Your task to perform on an android device: move a message to another label in the gmail app Image 0: 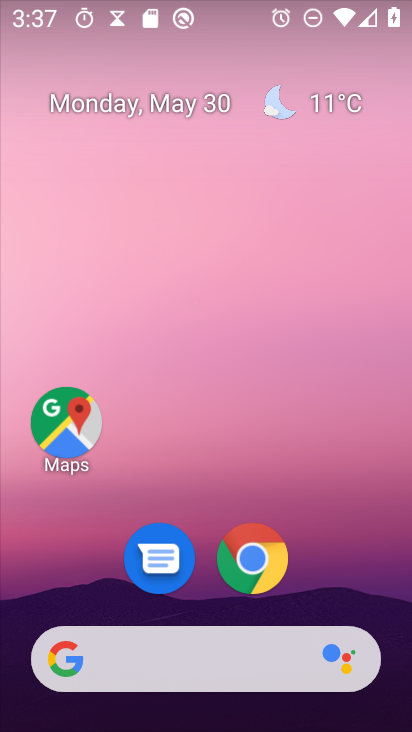
Step 0: drag from (185, 554) to (235, 44)
Your task to perform on an android device: move a message to another label in the gmail app Image 1: 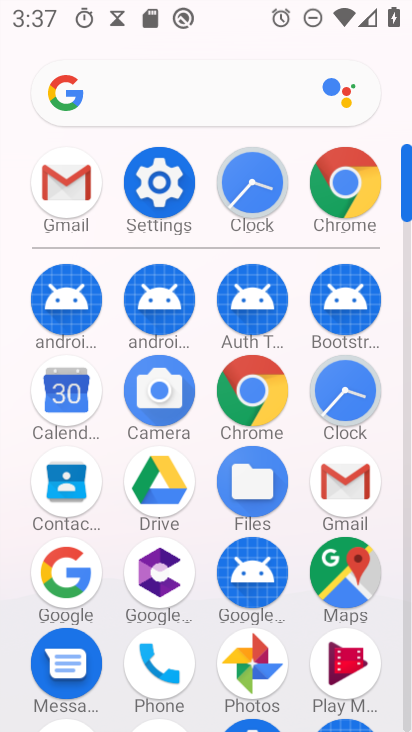
Step 1: click (76, 176)
Your task to perform on an android device: move a message to another label in the gmail app Image 2: 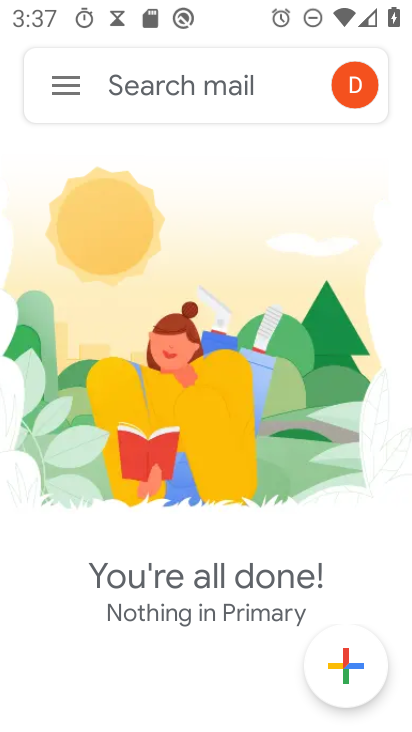
Step 2: click (55, 66)
Your task to perform on an android device: move a message to another label in the gmail app Image 3: 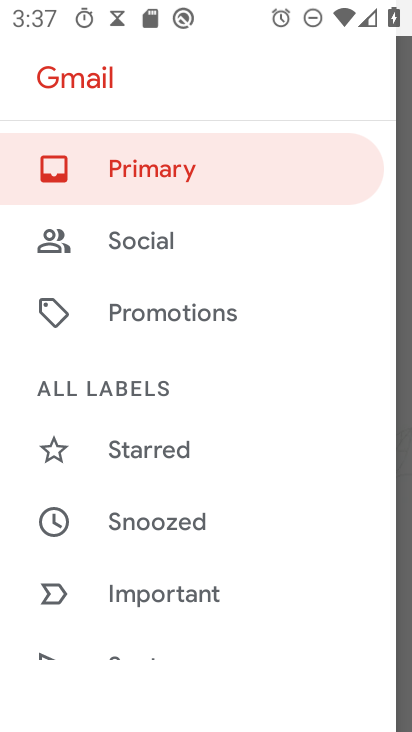
Step 3: drag from (169, 613) to (230, 116)
Your task to perform on an android device: move a message to another label in the gmail app Image 4: 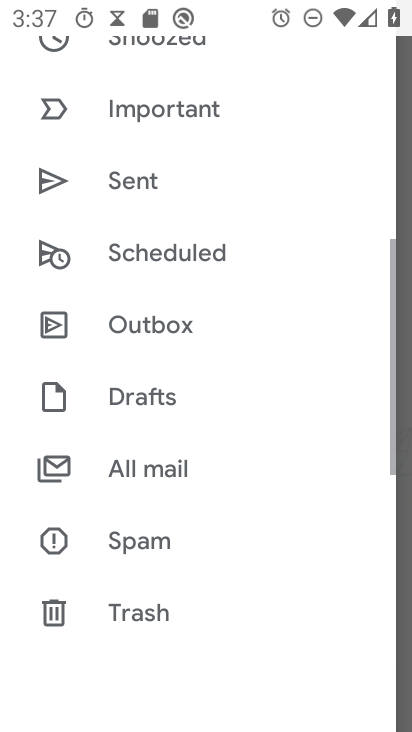
Step 4: click (145, 472)
Your task to perform on an android device: move a message to another label in the gmail app Image 5: 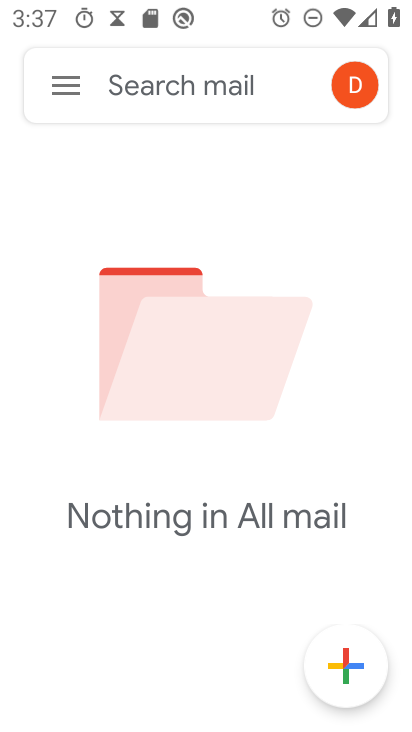
Step 5: task complete